Your task to perform on an android device: turn on bluetooth scan Image 0: 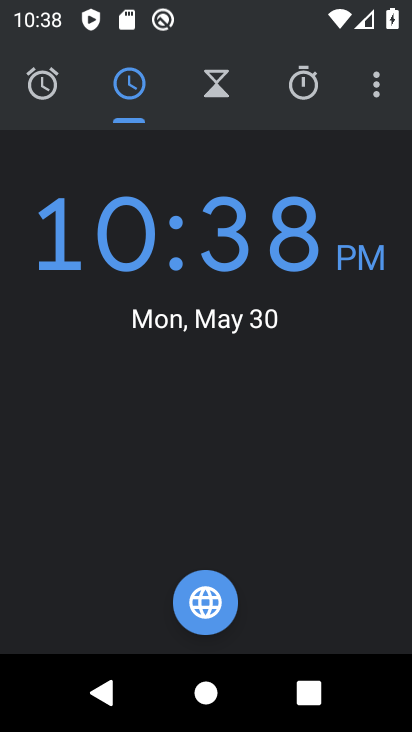
Step 0: press home button
Your task to perform on an android device: turn on bluetooth scan Image 1: 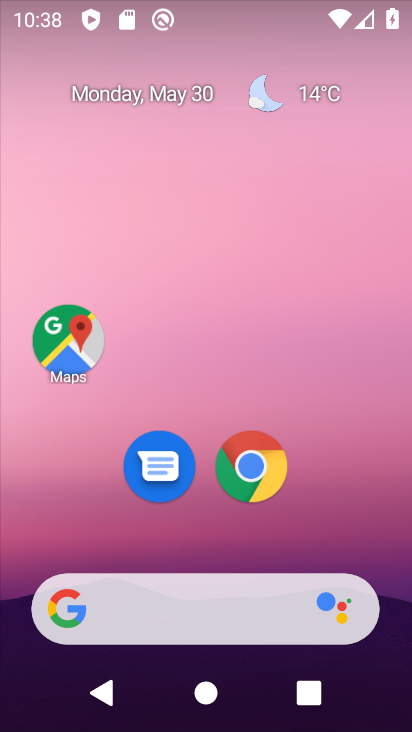
Step 1: drag from (311, 504) to (42, 138)
Your task to perform on an android device: turn on bluetooth scan Image 2: 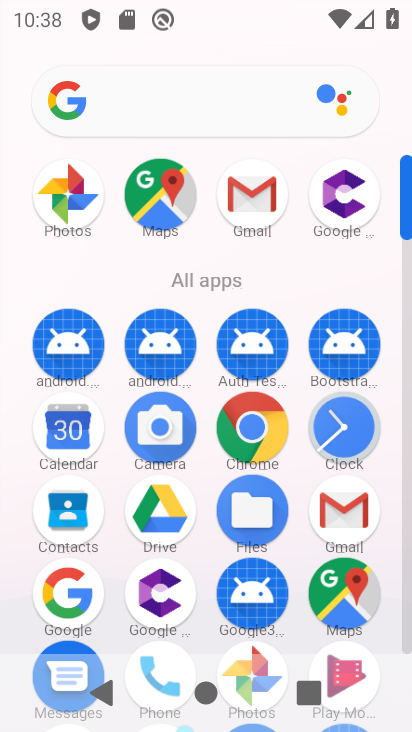
Step 2: drag from (108, 556) to (79, 225)
Your task to perform on an android device: turn on bluetooth scan Image 3: 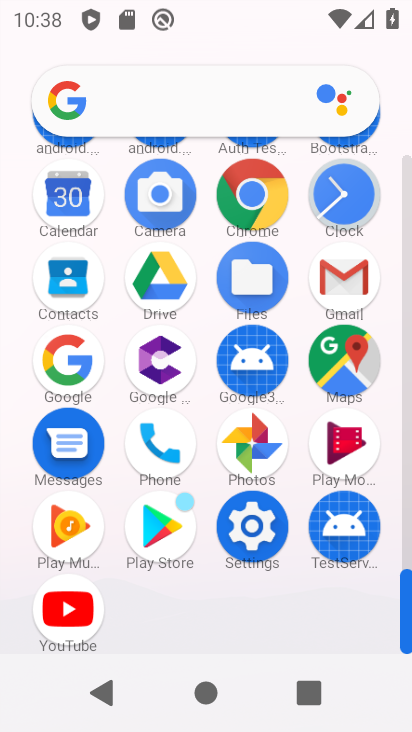
Step 3: click (257, 557)
Your task to perform on an android device: turn on bluetooth scan Image 4: 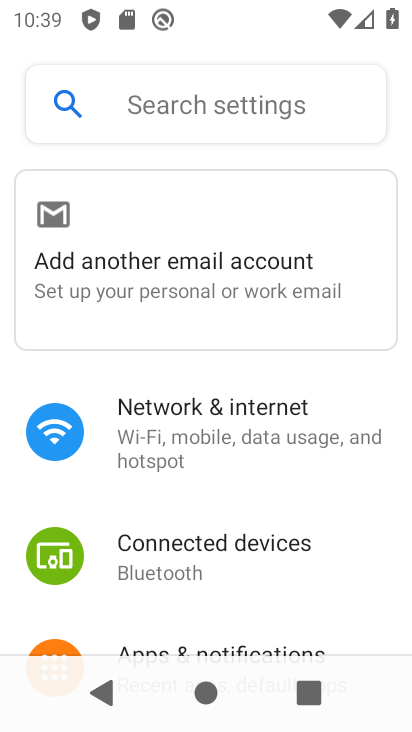
Step 4: drag from (250, 602) to (219, 71)
Your task to perform on an android device: turn on bluetooth scan Image 5: 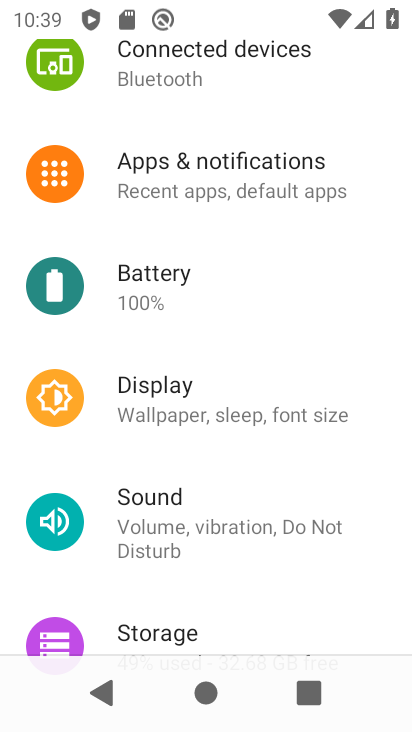
Step 5: drag from (207, 555) to (204, 227)
Your task to perform on an android device: turn on bluetooth scan Image 6: 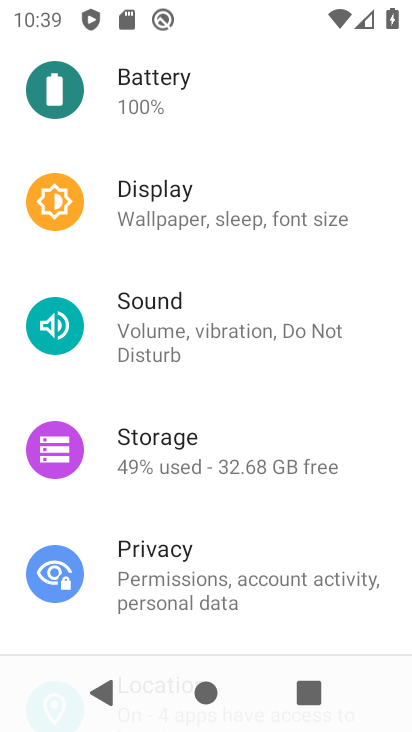
Step 6: drag from (203, 578) to (194, 16)
Your task to perform on an android device: turn on bluetooth scan Image 7: 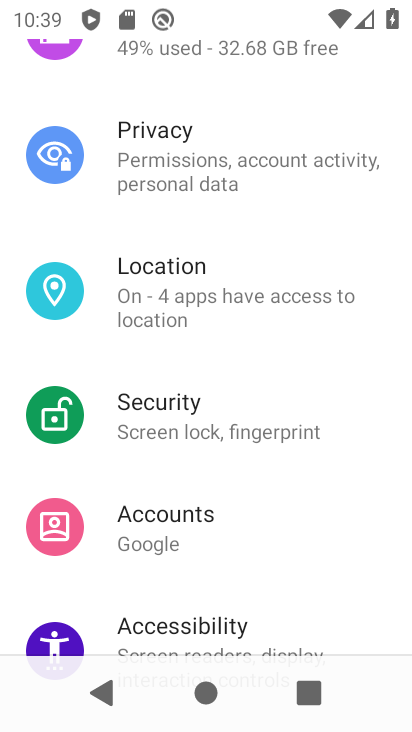
Step 7: click (206, 279)
Your task to perform on an android device: turn on bluetooth scan Image 8: 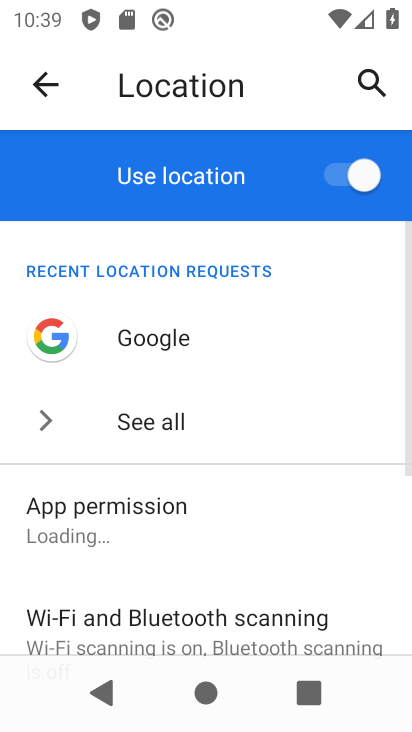
Step 8: drag from (243, 548) to (230, 36)
Your task to perform on an android device: turn on bluetooth scan Image 9: 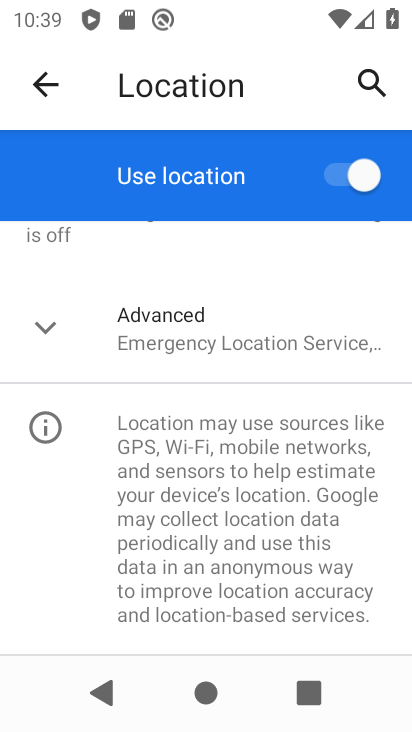
Step 9: drag from (215, 307) to (242, 584)
Your task to perform on an android device: turn on bluetooth scan Image 10: 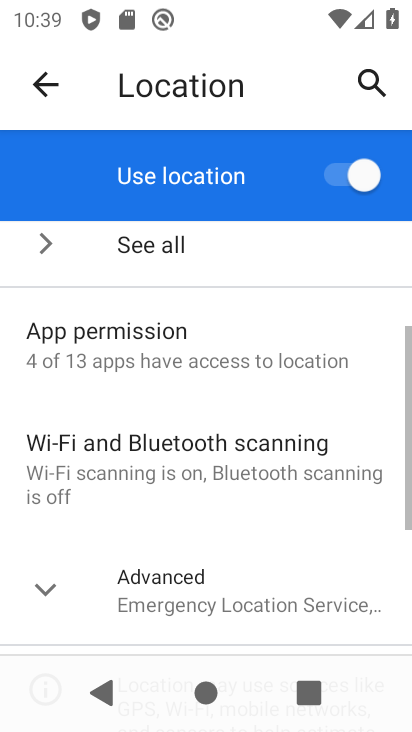
Step 10: click (211, 485)
Your task to perform on an android device: turn on bluetooth scan Image 11: 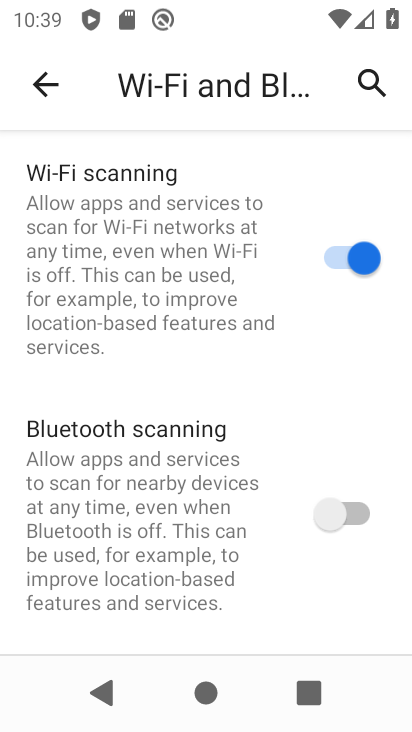
Step 11: click (363, 512)
Your task to perform on an android device: turn on bluetooth scan Image 12: 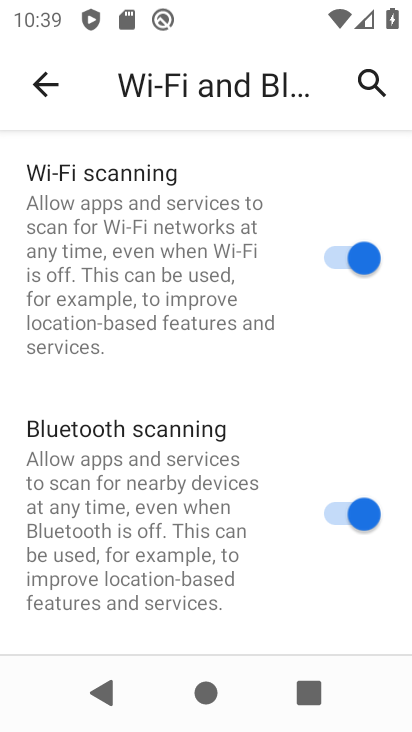
Step 12: task complete